Your task to perform on an android device: find snoozed emails in the gmail app Image 0: 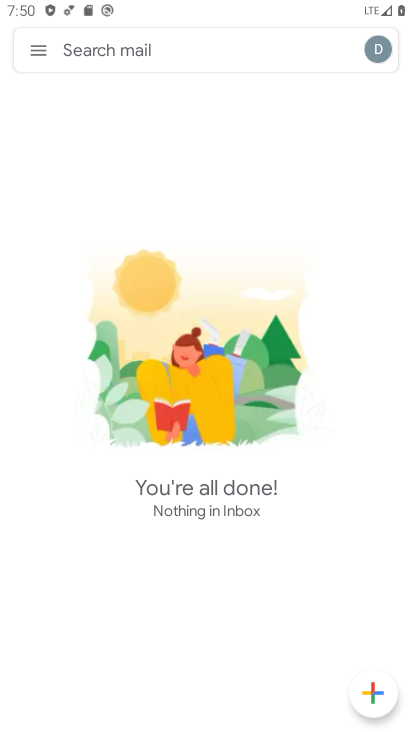
Step 0: click (269, 597)
Your task to perform on an android device: find snoozed emails in the gmail app Image 1: 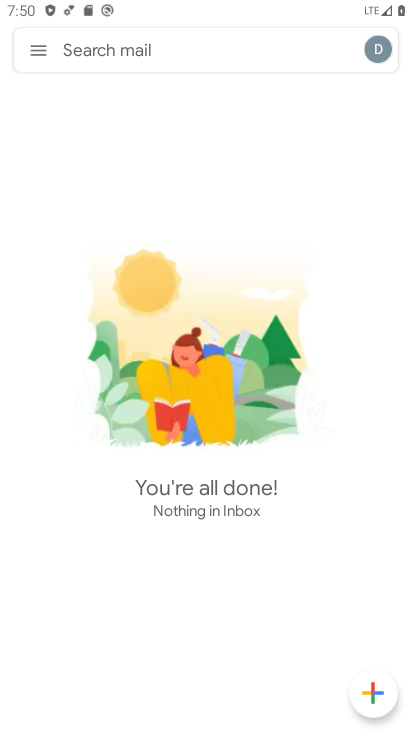
Step 1: press home button
Your task to perform on an android device: find snoozed emails in the gmail app Image 2: 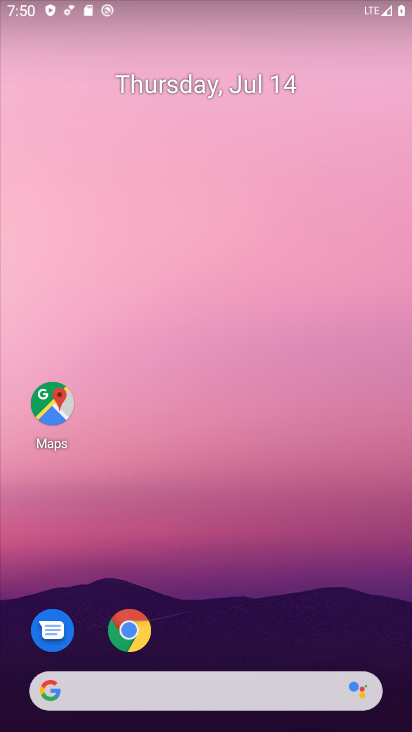
Step 2: drag from (226, 653) to (249, 333)
Your task to perform on an android device: find snoozed emails in the gmail app Image 3: 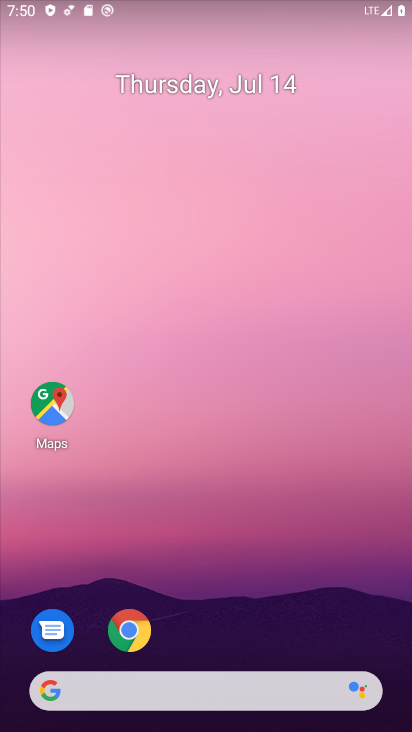
Step 3: drag from (178, 626) to (284, 145)
Your task to perform on an android device: find snoozed emails in the gmail app Image 4: 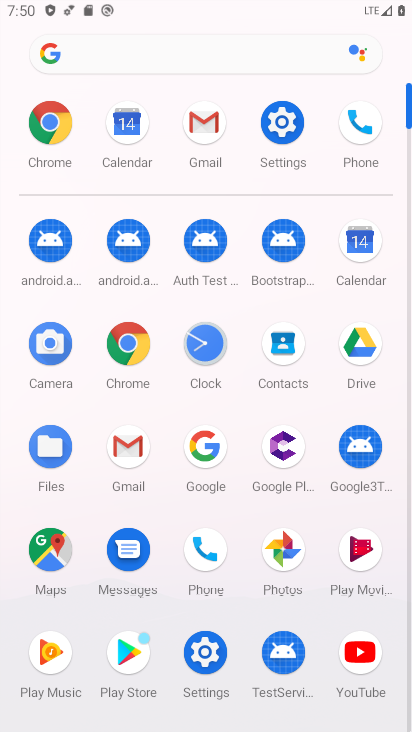
Step 4: click (202, 117)
Your task to perform on an android device: find snoozed emails in the gmail app Image 5: 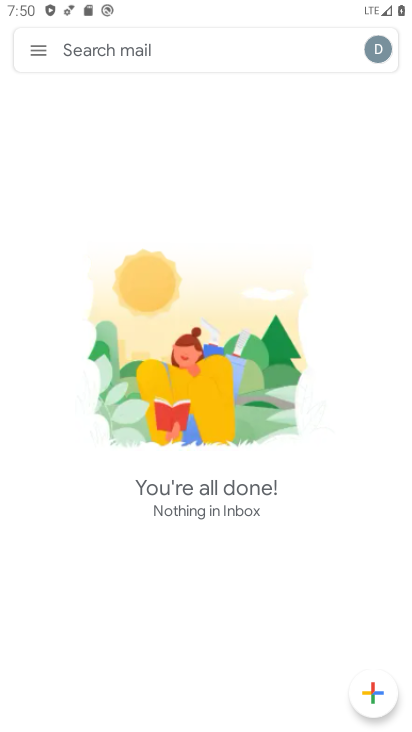
Step 5: click (46, 42)
Your task to perform on an android device: find snoozed emails in the gmail app Image 6: 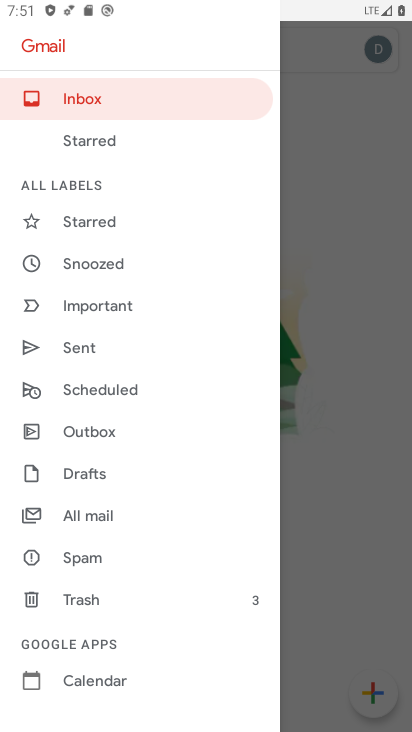
Step 6: click (99, 260)
Your task to perform on an android device: find snoozed emails in the gmail app Image 7: 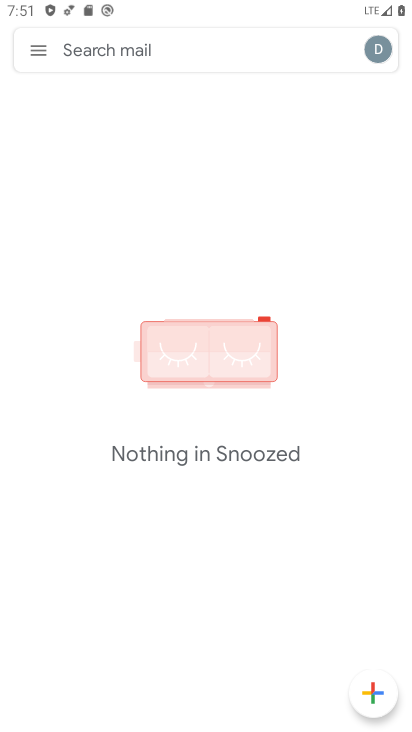
Step 7: task complete